Your task to perform on an android device: Open the web browser Image 0: 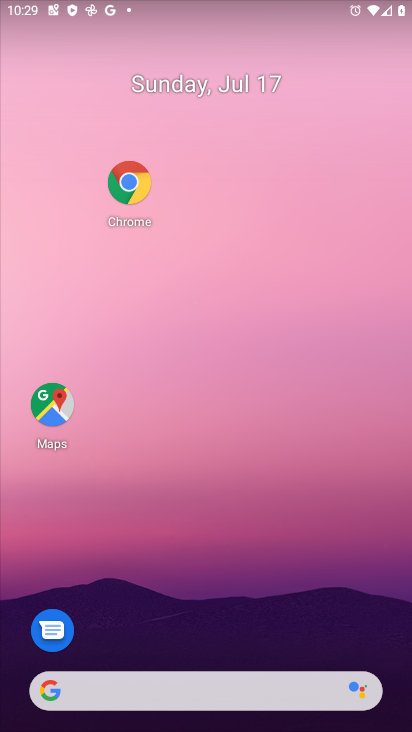
Step 0: click (131, 224)
Your task to perform on an android device: Open the web browser Image 1: 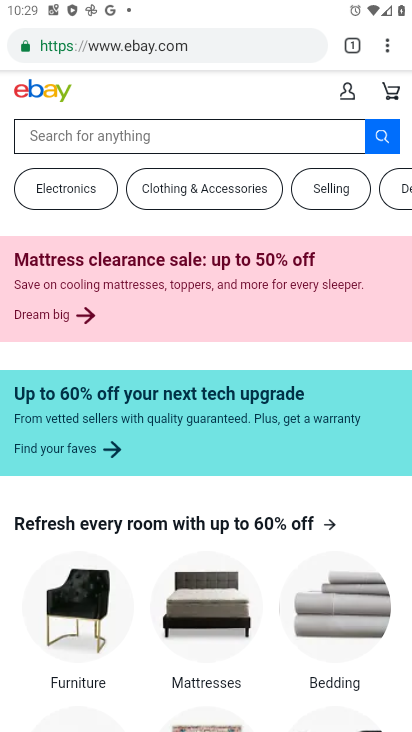
Step 1: task complete